Your task to perform on an android device: turn smart compose on in the gmail app Image 0: 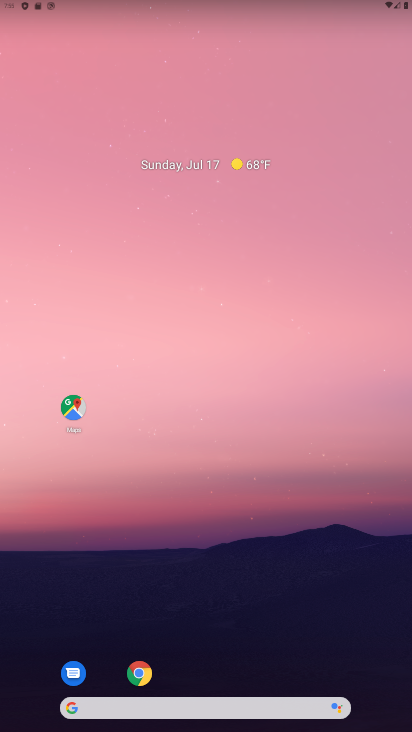
Step 0: drag from (272, 630) to (153, 27)
Your task to perform on an android device: turn smart compose on in the gmail app Image 1: 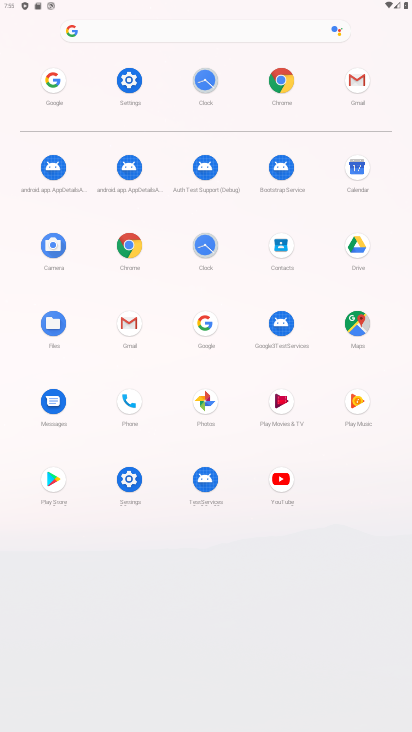
Step 1: click (349, 79)
Your task to perform on an android device: turn smart compose on in the gmail app Image 2: 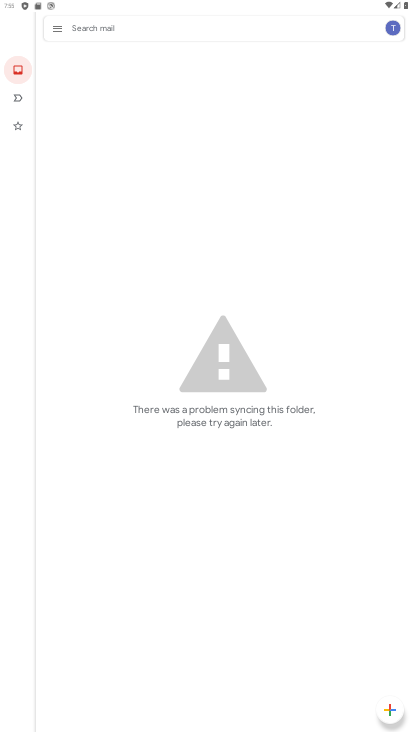
Step 2: click (54, 23)
Your task to perform on an android device: turn smart compose on in the gmail app Image 3: 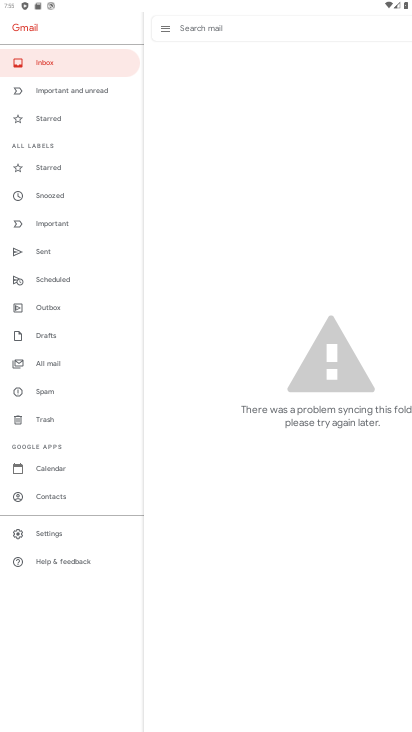
Step 3: click (53, 547)
Your task to perform on an android device: turn smart compose on in the gmail app Image 4: 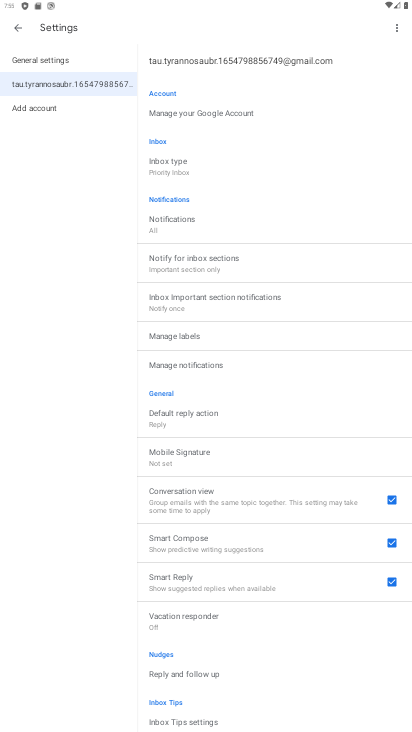
Step 4: task complete